Your task to perform on an android device: change notification settings in the gmail app Image 0: 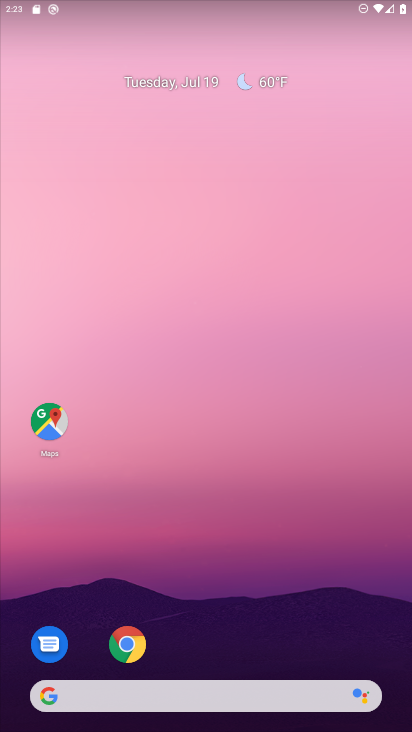
Step 0: click (285, 394)
Your task to perform on an android device: change notification settings in the gmail app Image 1: 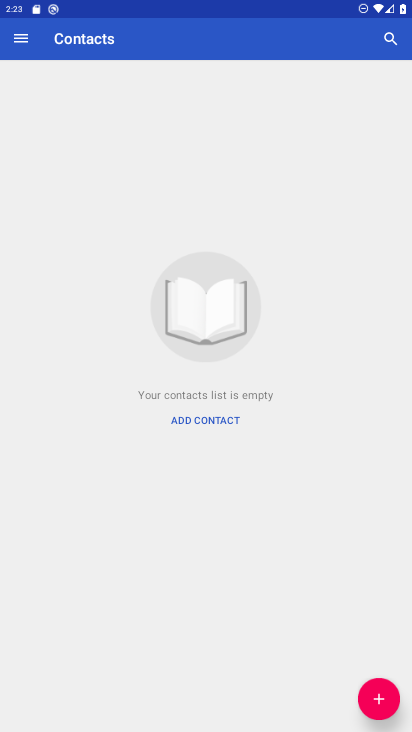
Step 1: press home button
Your task to perform on an android device: change notification settings in the gmail app Image 2: 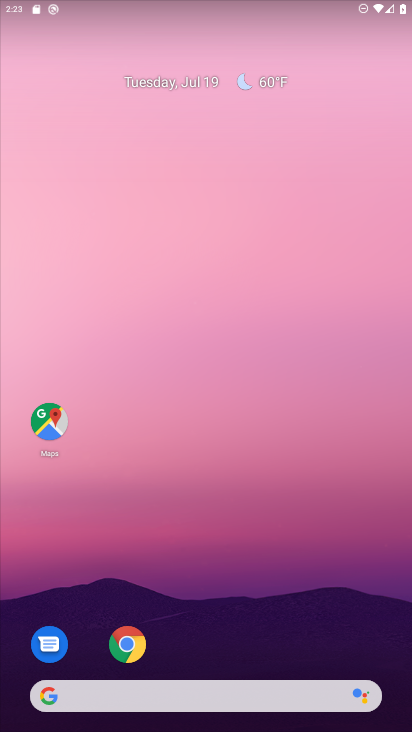
Step 2: drag from (393, 695) to (355, 58)
Your task to perform on an android device: change notification settings in the gmail app Image 3: 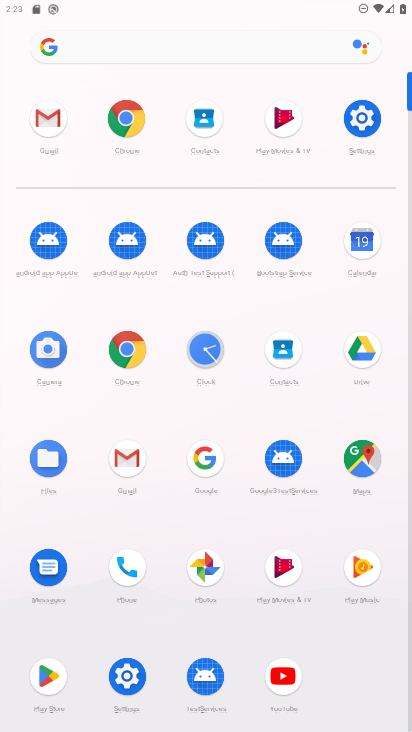
Step 3: click (139, 468)
Your task to perform on an android device: change notification settings in the gmail app Image 4: 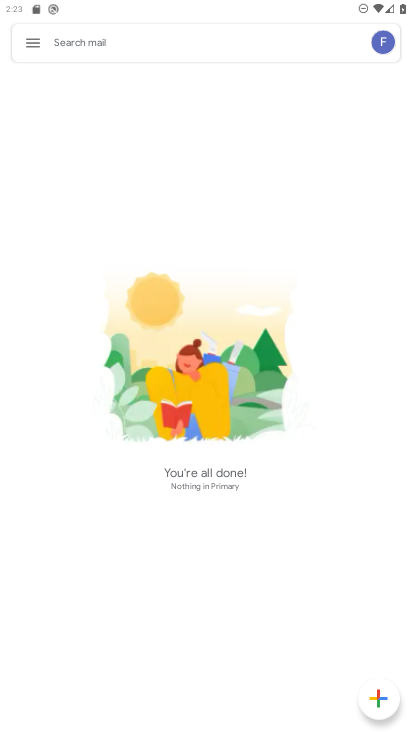
Step 4: click (24, 41)
Your task to perform on an android device: change notification settings in the gmail app Image 5: 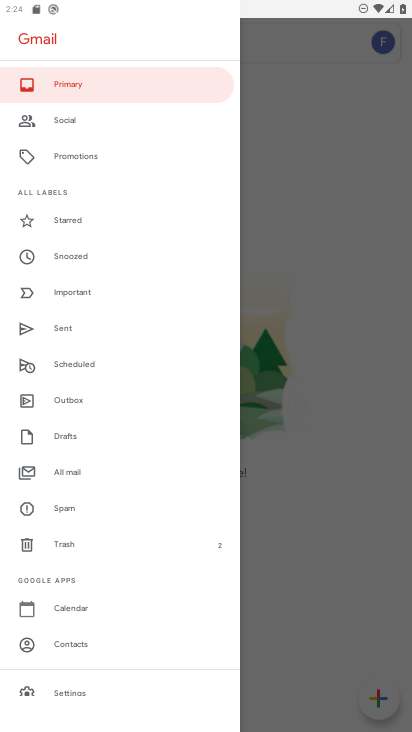
Step 5: click (64, 688)
Your task to perform on an android device: change notification settings in the gmail app Image 6: 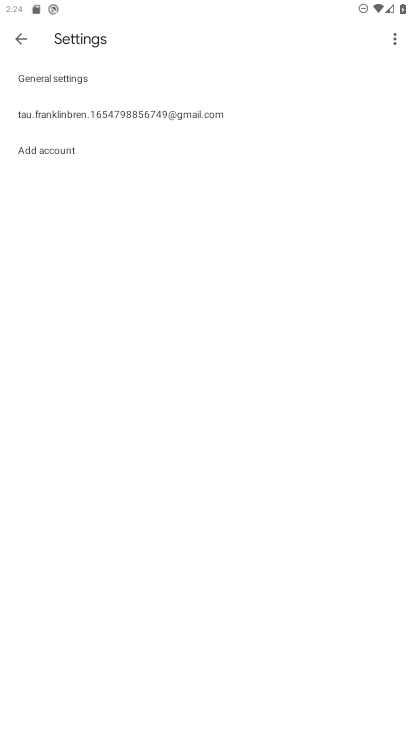
Step 6: click (142, 114)
Your task to perform on an android device: change notification settings in the gmail app Image 7: 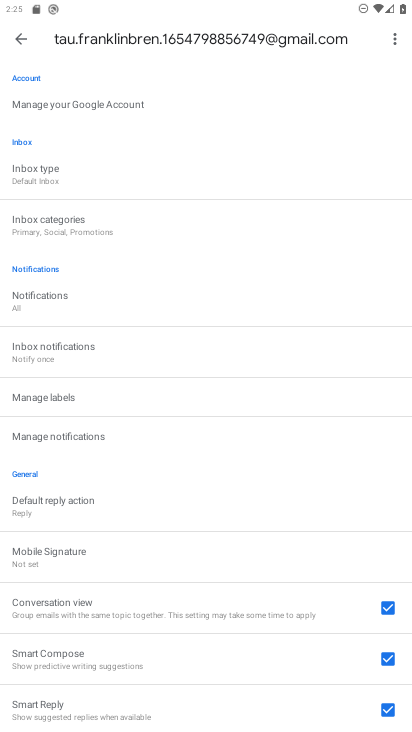
Step 7: click (44, 293)
Your task to perform on an android device: change notification settings in the gmail app Image 8: 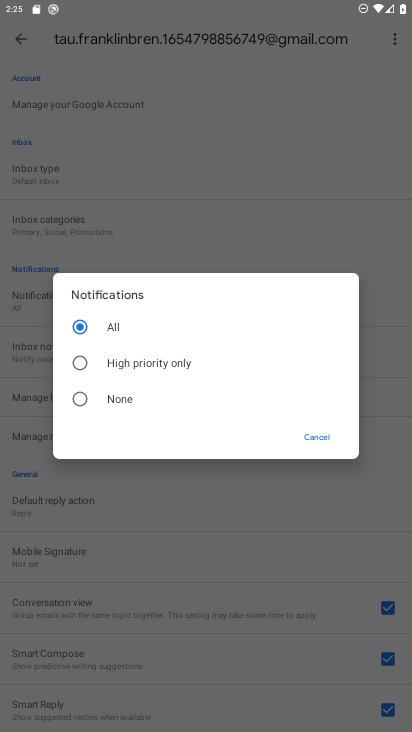
Step 8: click (75, 360)
Your task to perform on an android device: change notification settings in the gmail app Image 9: 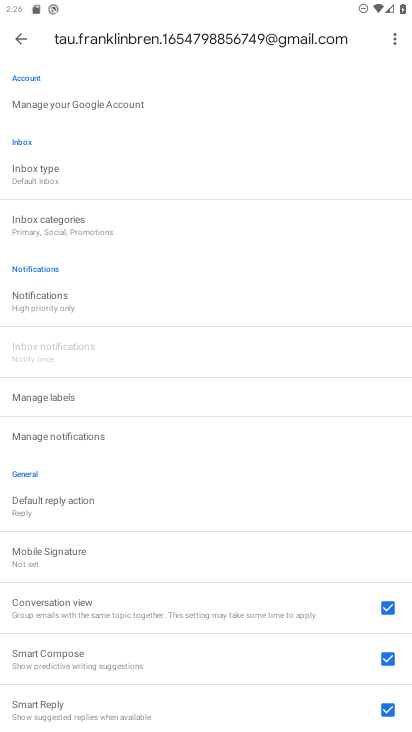
Step 9: task complete